Your task to perform on an android device: delete location history Image 0: 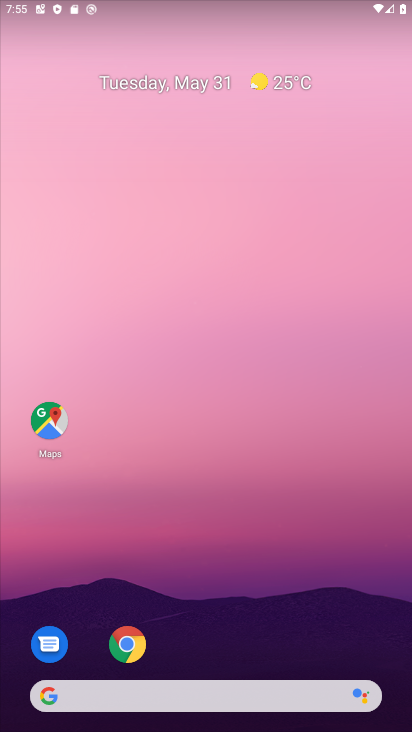
Step 0: drag from (264, 720) to (315, 123)
Your task to perform on an android device: delete location history Image 1: 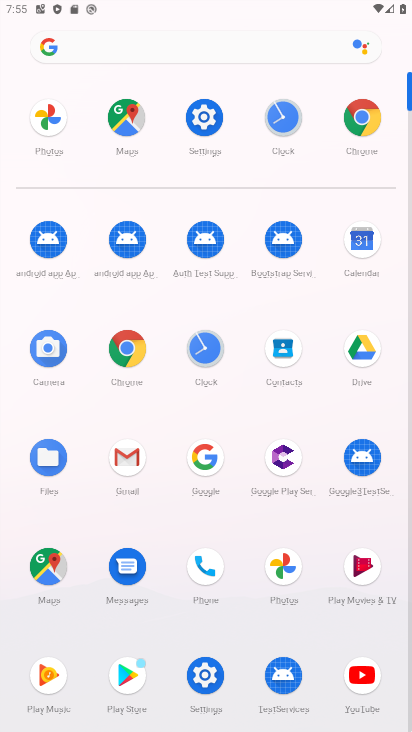
Step 1: click (210, 120)
Your task to perform on an android device: delete location history Image 2: 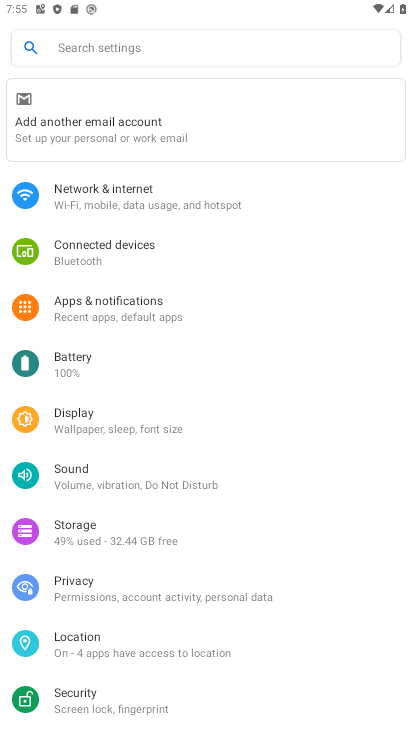
Step 2: click (88, 49)
Your task to perform on an android device: delete location history Image 3: 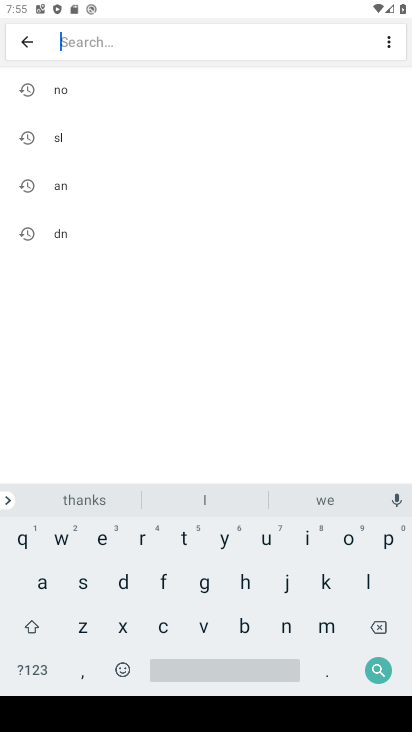
Step 3: click (366, 573)
Your task to perform on an android device: delete location history Image 4: 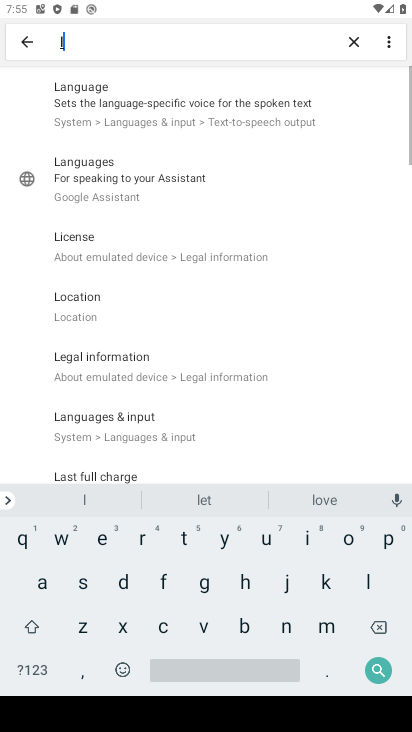
Step 4: click (343, 540)
Your task to perform on an android device: delete location history Image 5: 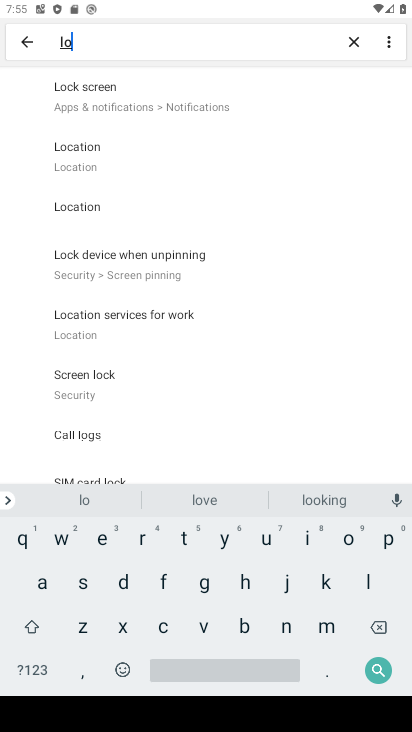
Step 5: click (116, 164)
Your task to perform on an android device: delete location history Image 6: 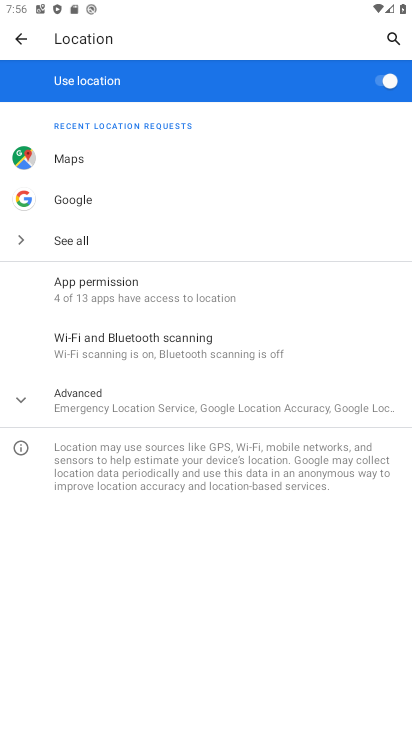
Step 6: click (29, 407)
Your task to perform on an android device: delete location history Image 7: 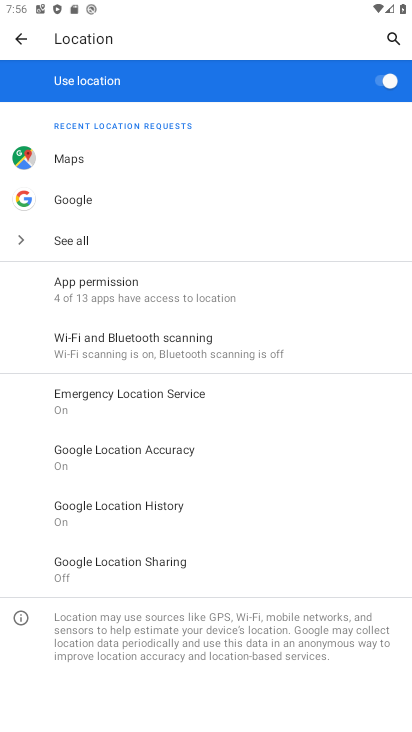
Step 7: click (135, 511)
Your task to perform on an android device: delete location history Image 8: 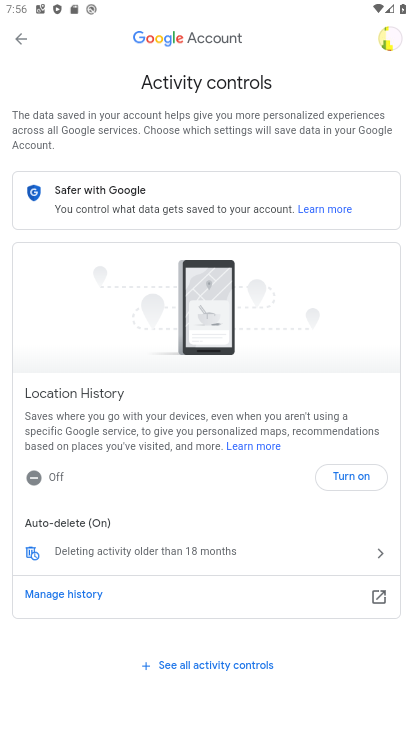
Step 8: task complete